Your task to perform on an android device: Open the calendar and show me this week's events? Image 0: 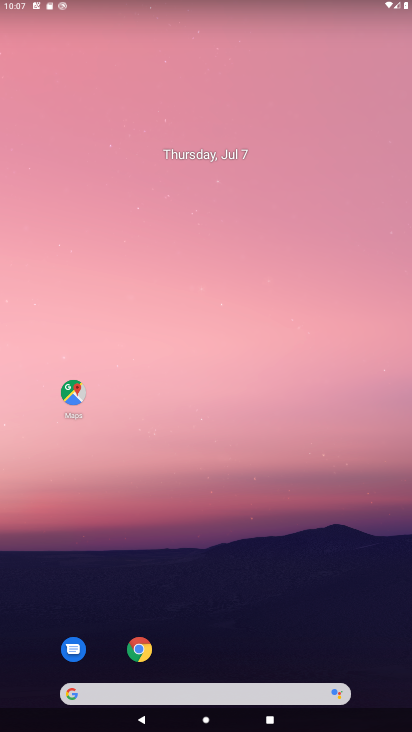
Step 0: drag from (229, 617) to (229, 94)
Your task to perform on an android device: Open the calendar and show me this week's events? Image 1: 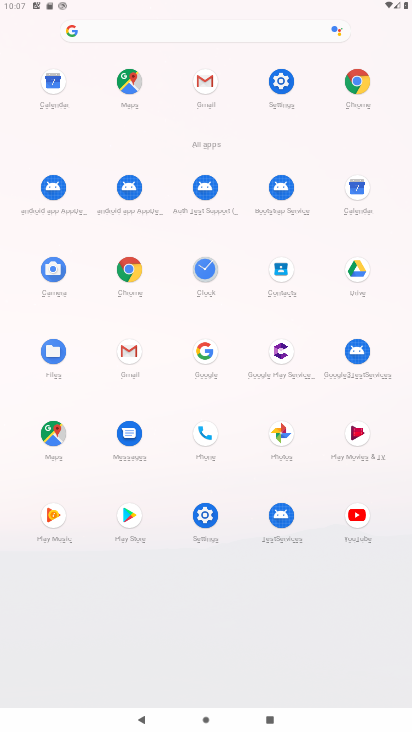
Step 1: click (353, 186)
Your task to perform on an android device: Open the calendar and show me this week's events? Image 2: 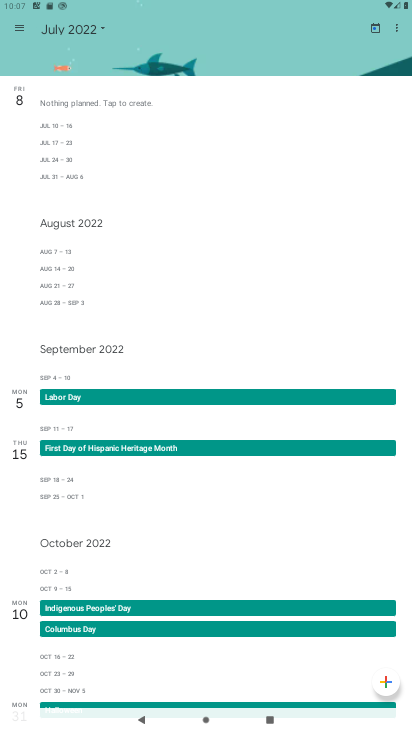
Step 2: click (79, 23)
Your task to perform on an android device: Open the calendar and show me this week's events? Image 3: 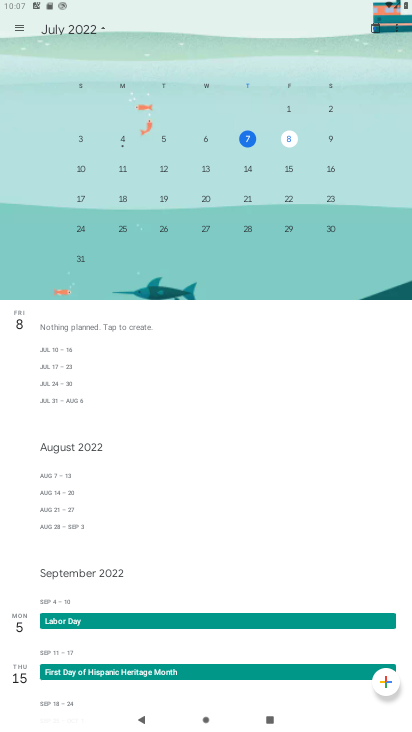
Step 3: click (245, 139)
Your task to perform on an android device: Open the calendar and show me this week's events? Image 4: 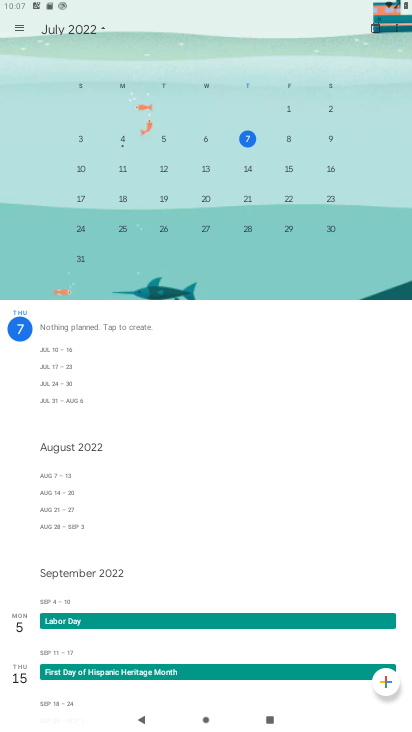
Step 4: task complete